Your task to perform on an android device: make emails show in primary in the gmail app Image 0: 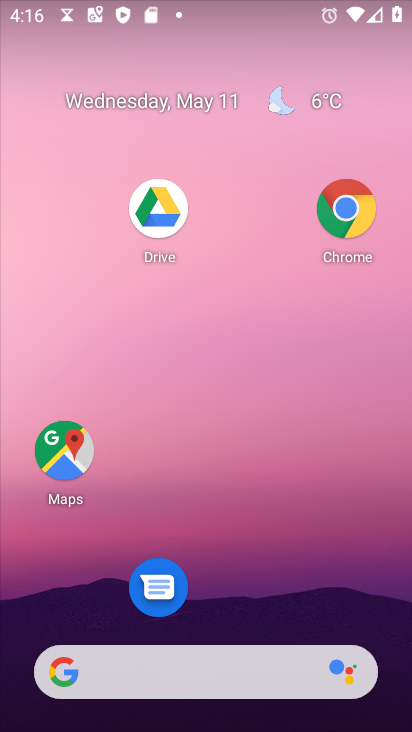
Step 0: drag from (287, 549) to (180, 123)
Your task to perform on an android device: make emails show in primary in the gmail app Image 1: 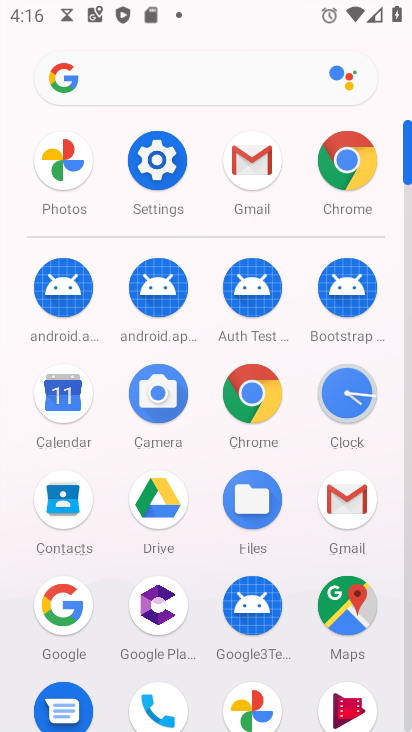
Step 1: click (245, 164)
Your task to perform on an android device: make emails show in primary in the gmail app Image 2: 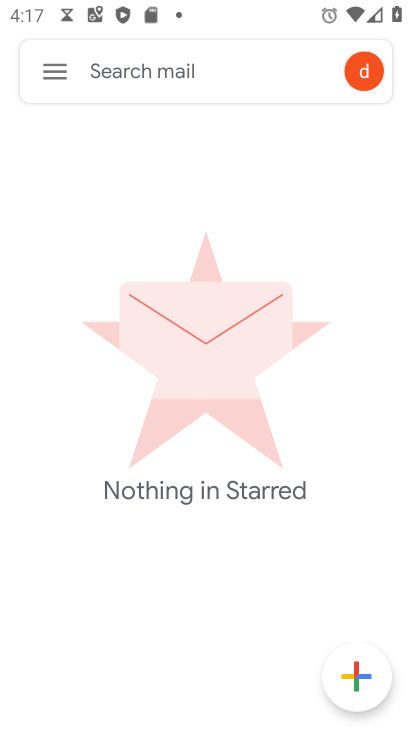
Step 2: click (55, 70)
Your task to perform on an android device: make emails show in primary in the gmail app Image 3: 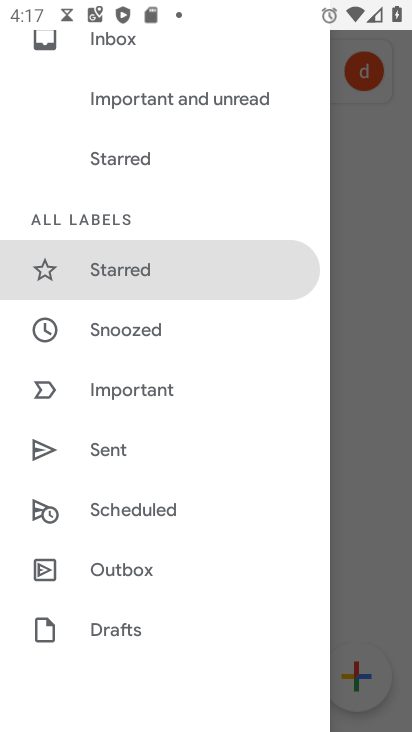
Step 3: drag from (186, 577) to (140, 280)
Your task to perform on an android device: make emails show in primary in the gmail app Image 4: 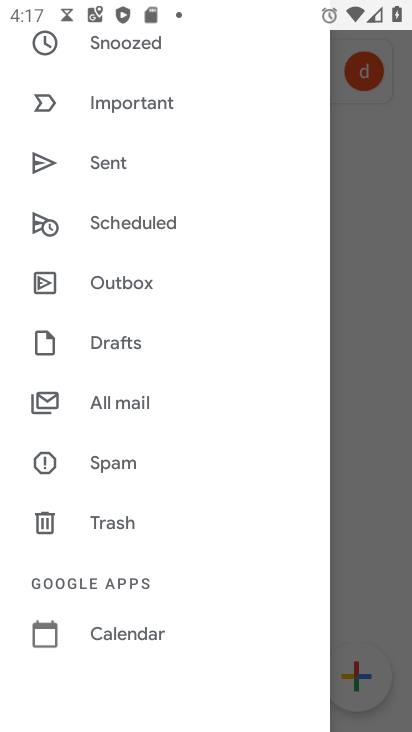
Step 4: drag from (204, 552) to (85, 141)
Your task to perform on an android device: make emails show in primary in the gmail app Image 5: 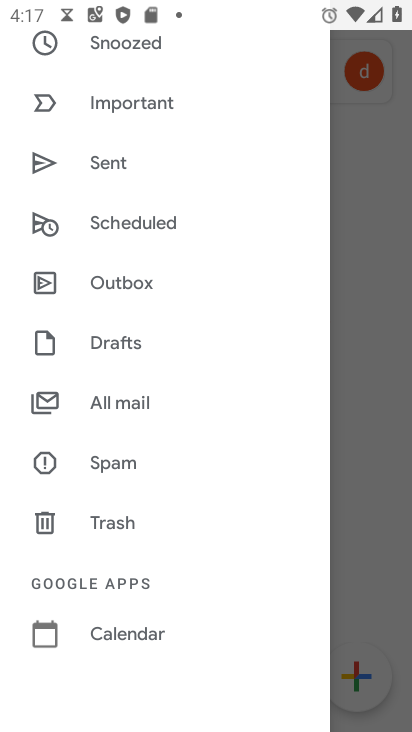
Step 5: drag from (190, 552) to (206, 355)
Your task to perform on an android device: make emails show in primary in the gmail app Image 6: 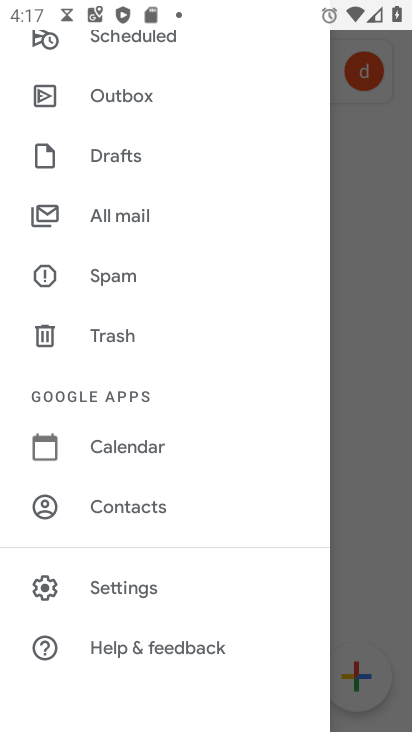
Step 6: click (128, 592)
Your task to perform on an android device: make emails show in primary in the gmail app Image 7: 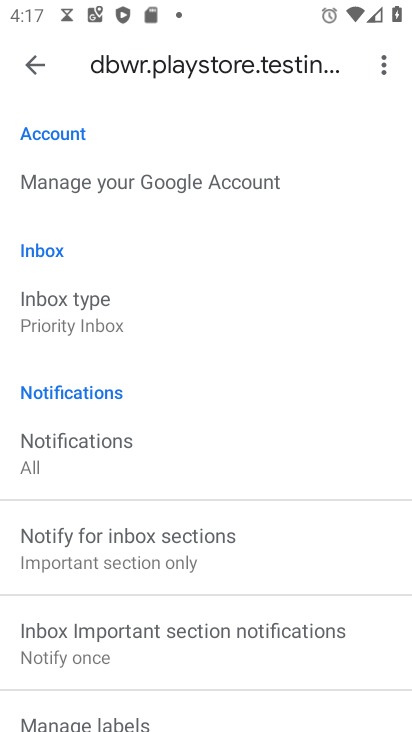
Step 7: click (98, 327)
Your task to perform on an android device: make emails show in primary in the gmail app Image 8: 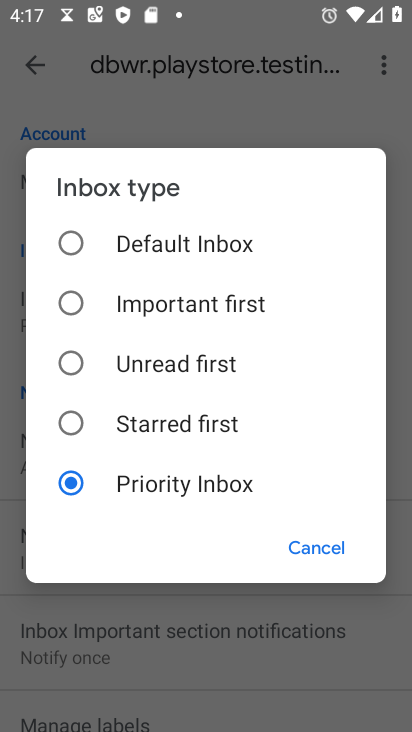
Step 8: click (73, 252)
Your task to perform on an android device: make emails show in primary in the gmail app Image 9: 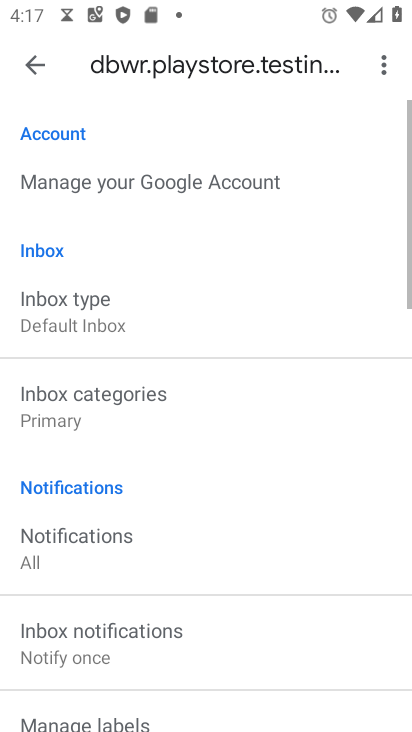
Step 9: click (89, 398)
Your task to perform on an android device: make emails show in primary in the gmail app Image 10: 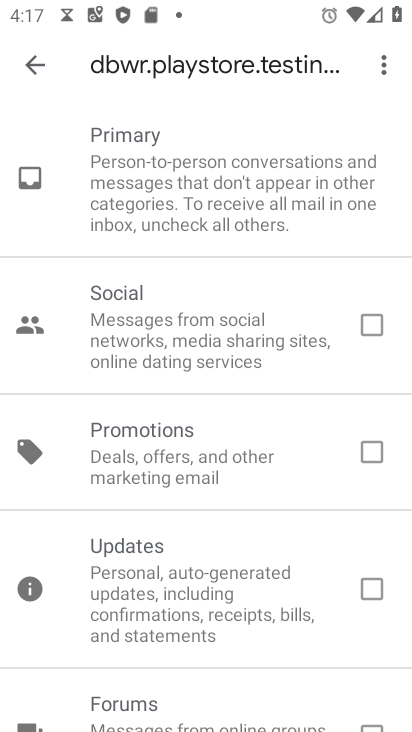
Step 10: task complete